Your task to perform on an android device: set the timer Image 0: 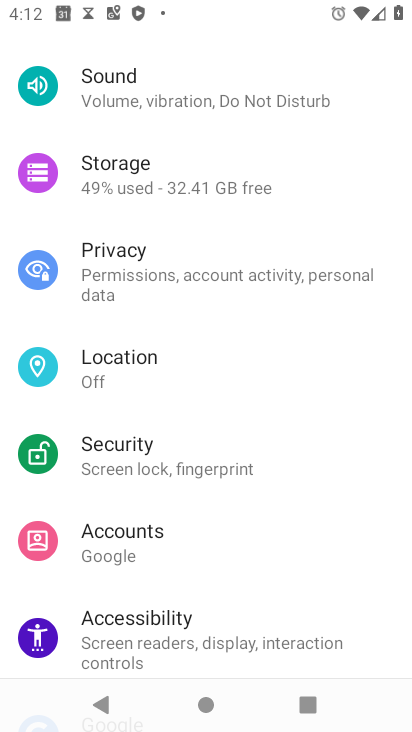
Step 0: press home button
Your task to perform on an android device: set the timer Image 1: 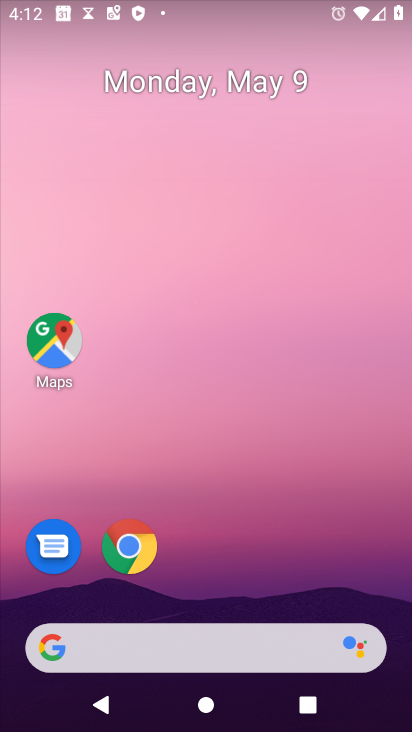
Step 1: drag from (269, 487) to (200, 93)
Your task to perform on an android device: set the timer Image 2: 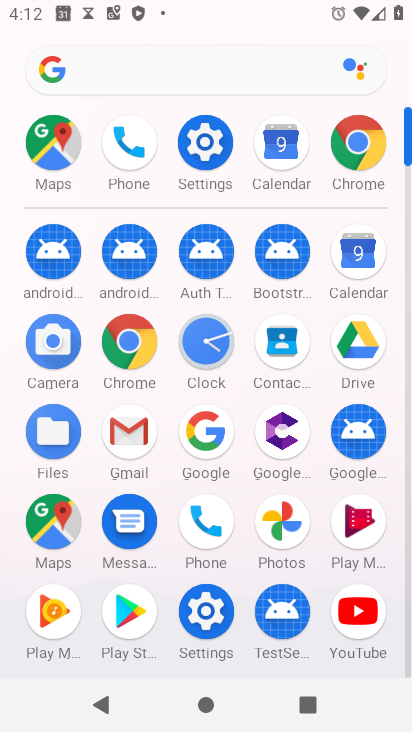
Step 2: click (189, 331)
Your task to perform on an android device: set the timer Image 3: 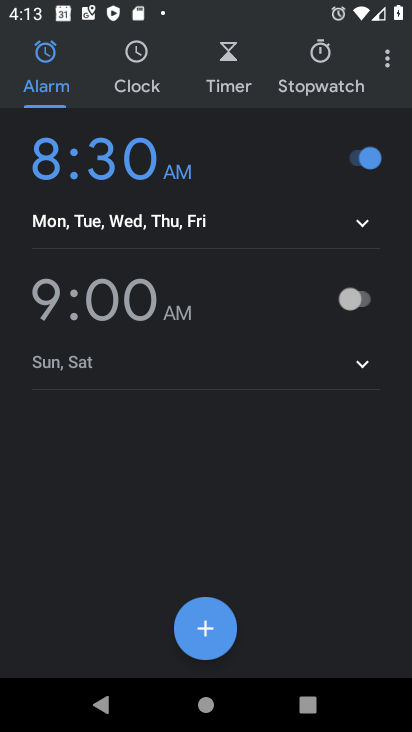
Step 3: click (255, 63)
Your task to perform on an android device: set the timer Image 4: 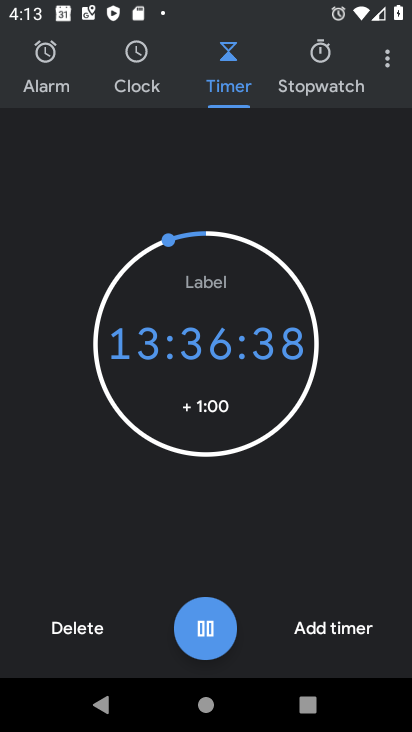
Step 4: task complete